Your task to perform on an android device: Go to Android settings Image 0: 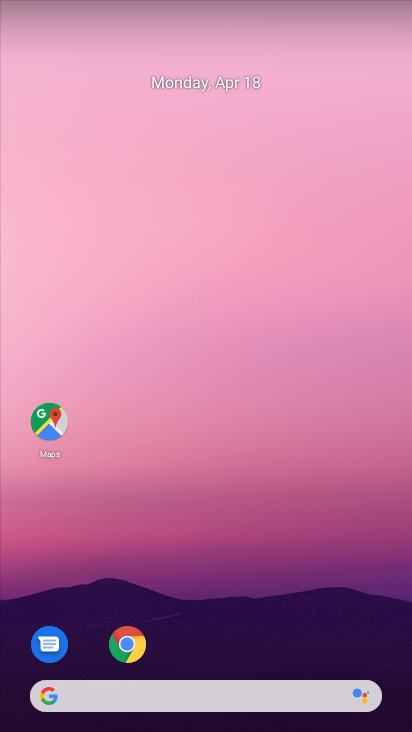
Step 0: drag from (212, 649) to (264, 0)
Your task to perform on an android device: Go to Android settings Image 1: 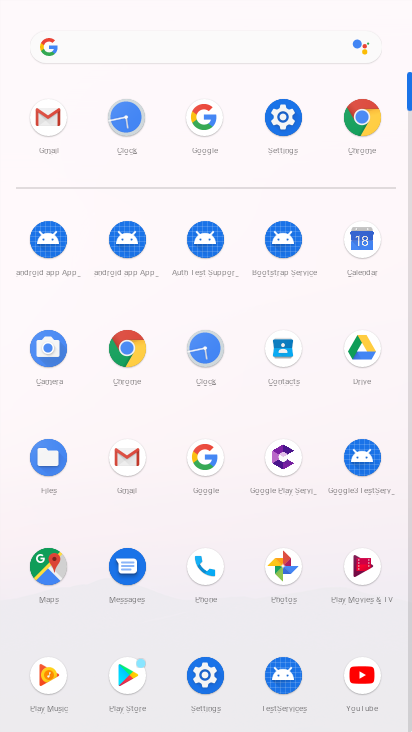
Step 1: click (53, 236)
Your task to perform on an android device: Go to Android settings Image 2: 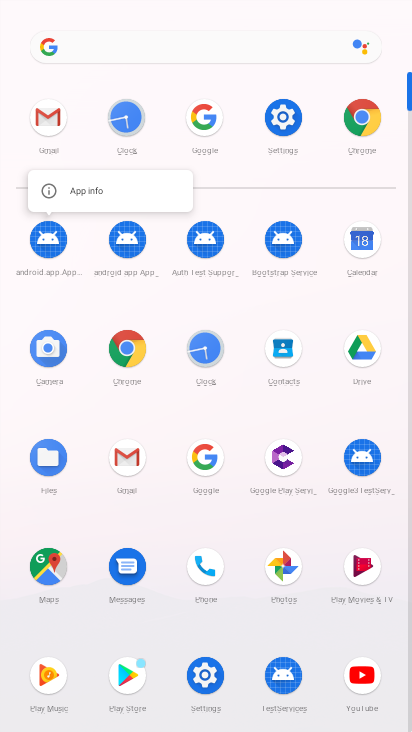
Step 2: click (42, 236)
Your task to perform on an android device: Go to Android settings Image 3: 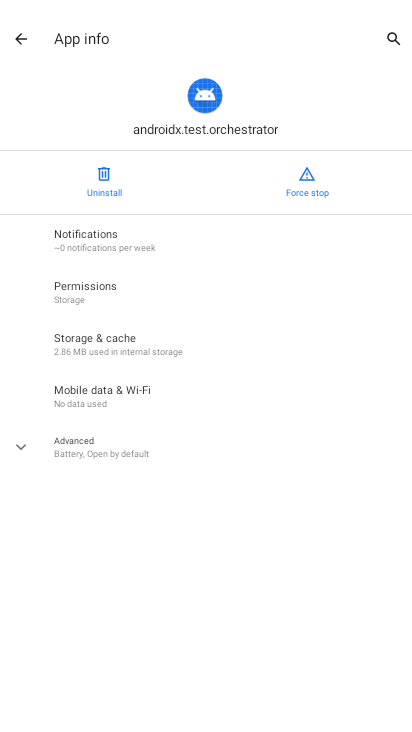
Step 3: click (20, 444)
Your task to perform on an android device: Go to Android settings Image 4: 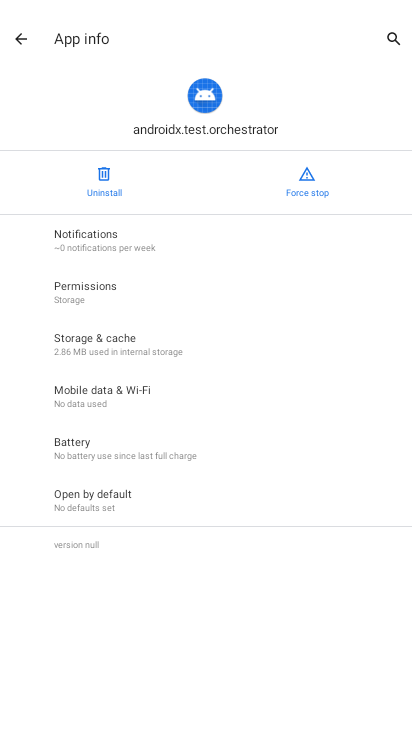
Step 4: task complete